Your task to perform on an android device: Do I have any events today? Image 0: 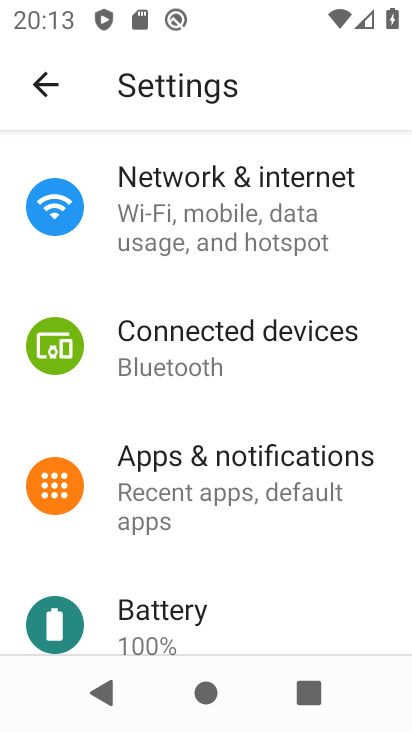
Step 0: press home button
Your task to perform on an android device: Do I have any events today? Image 1: 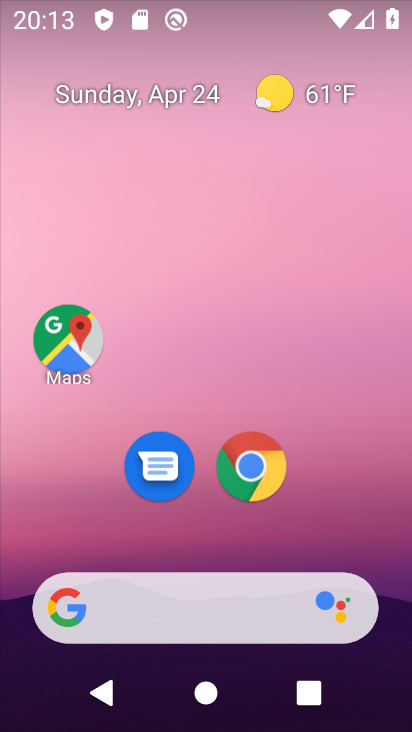
Step 1: drag from (190, 539) to (229, 2)
Your task to perform on an android device: Do I have any events today? Image 2: 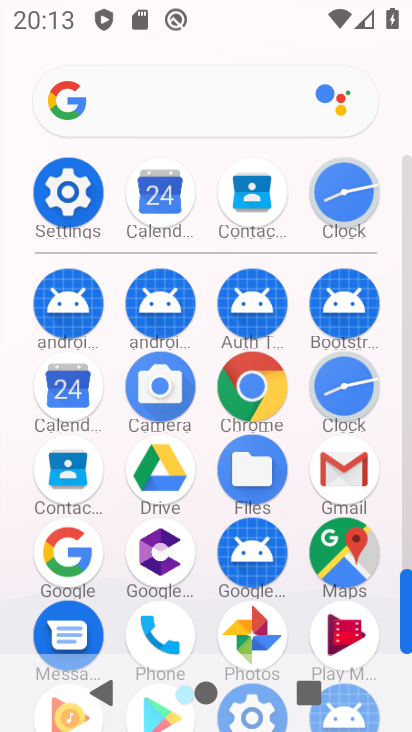
Step 2: click (63, 397)
Your task to perform on an android device: Do I have any events today? Image 3: 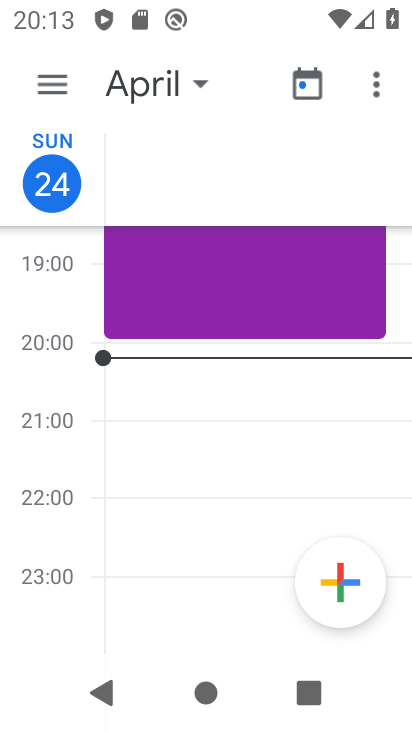
Step 3: click (71, 93)
Your task to perform on an android device: Do I have any events today? Image 4: 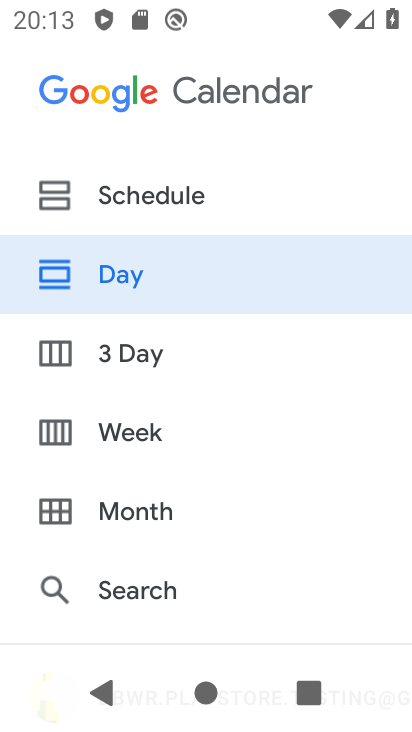
Step 4: drag from (158, 479) to (217, 31)
Your task to perform on an android device: Do I have any events today? Image 5: 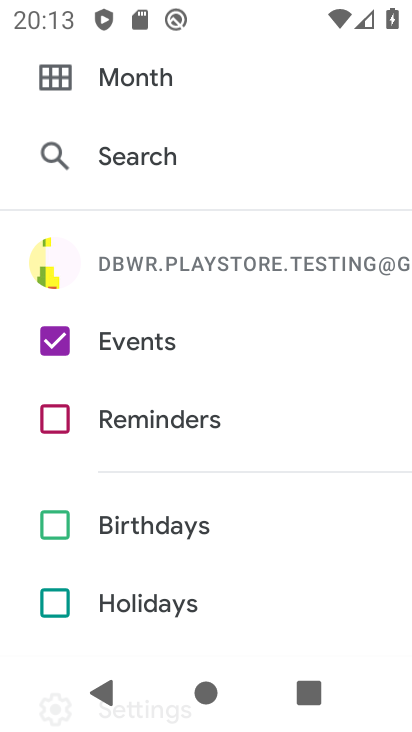
Step 5: drag from (242, 119) to (183, 715)
Your task to perform on an android device: Do I have any events today? Image 6: 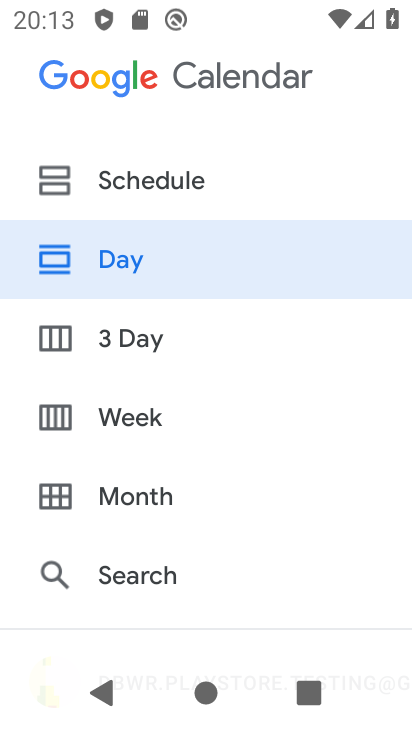
Step 6: click (130, 351)
Your task to perform on an android device: Do I have any events today? Image 7: 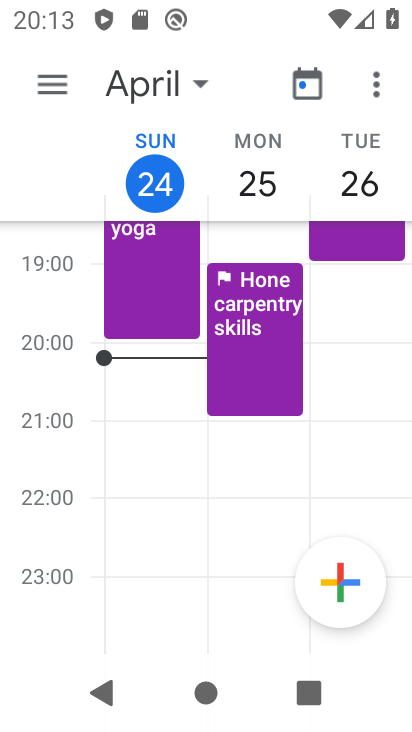
Step 7: task complete